Your task to perform on an android device: see sites visited before in the chrome app Image 0: 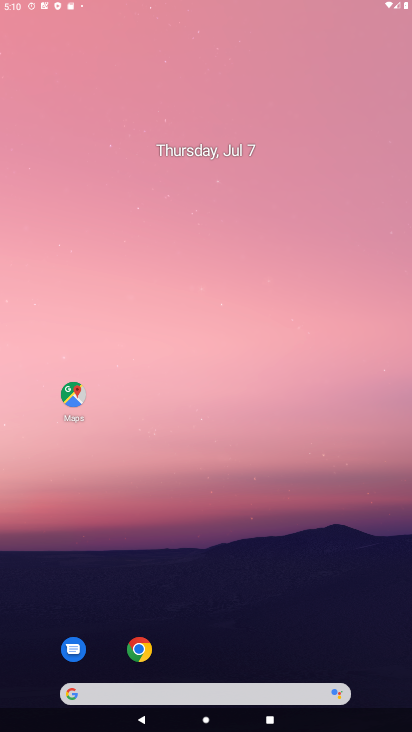
Step 0: drag from (352, 672) to (157, 101)
Your task to perform on an android device: see sites visited before in the chrome app Image 1: 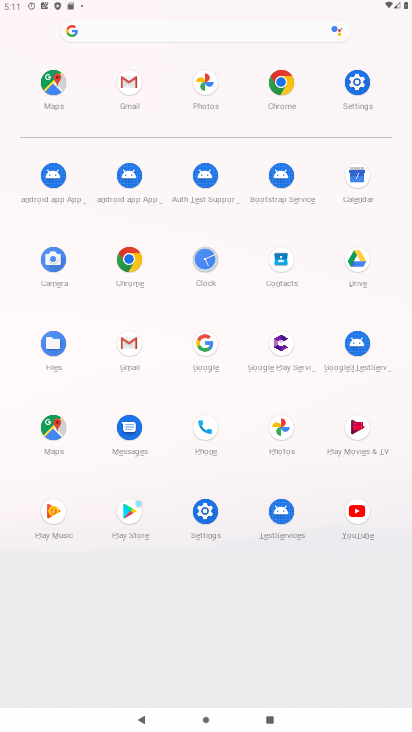
Step 1: click (128, 251)
Your task to perform on an android device: see sites visited before in the chrome app Image 2: 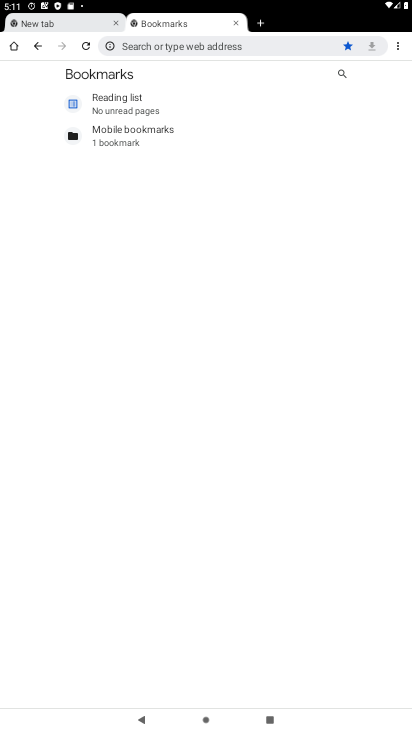
Step 2: task complete